Your task to perform on an android device: Open my contact list Image 0: 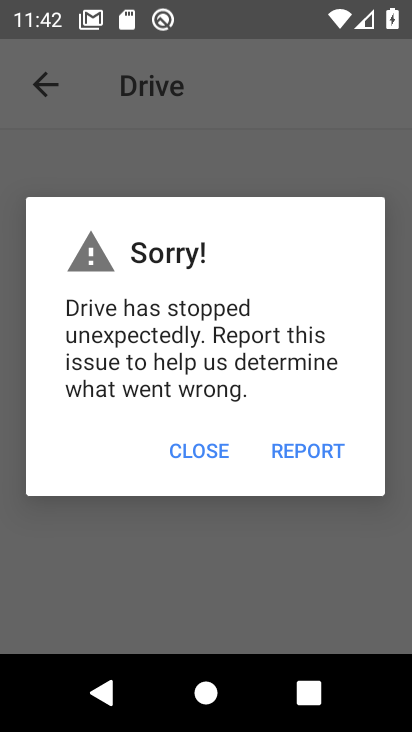
Step 0: press home button
Your task to perform on an android device: Open my contact list Image 1: 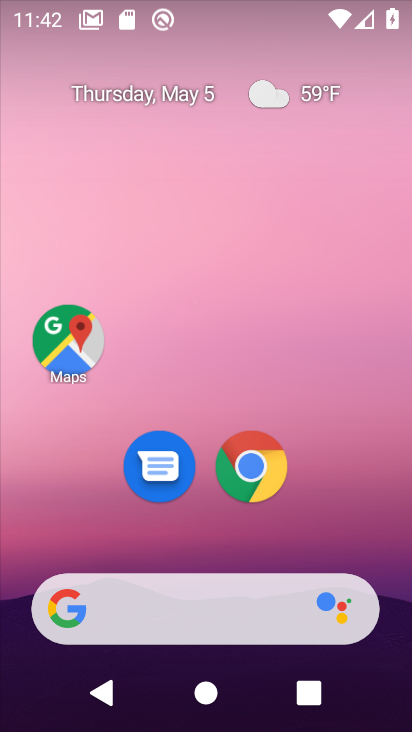
Step 1: drag from (349, 516) to (252, 142)
Your task to perform on an android device: Open my contact list Image 2: 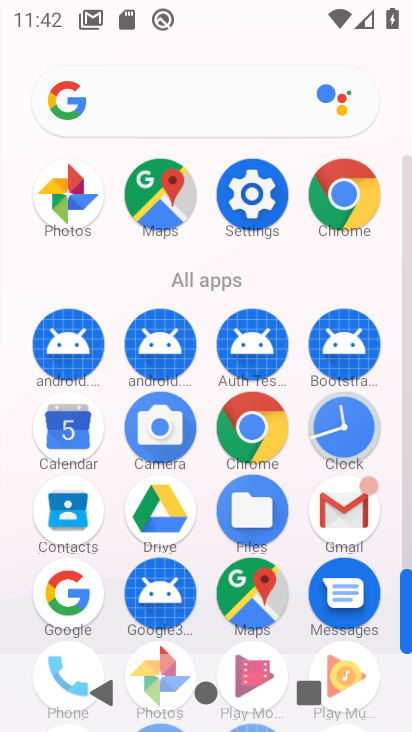
Step 2: click (81, 512)
Your task to perform on an android device: Open my contact list Image 3: 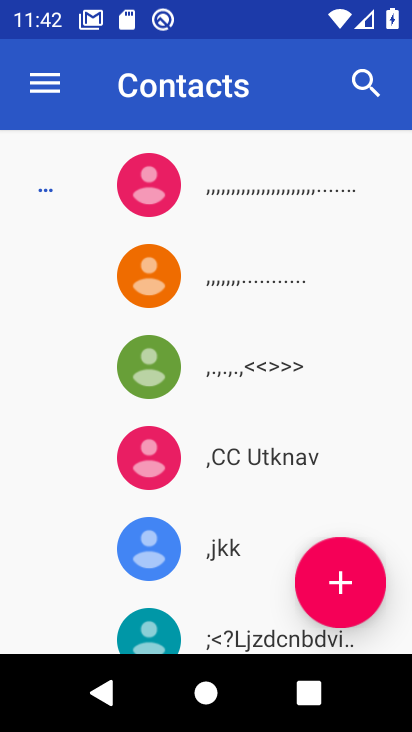
Step 3: task complete